Your task to perform on an android device: turn on wifi Image 0: 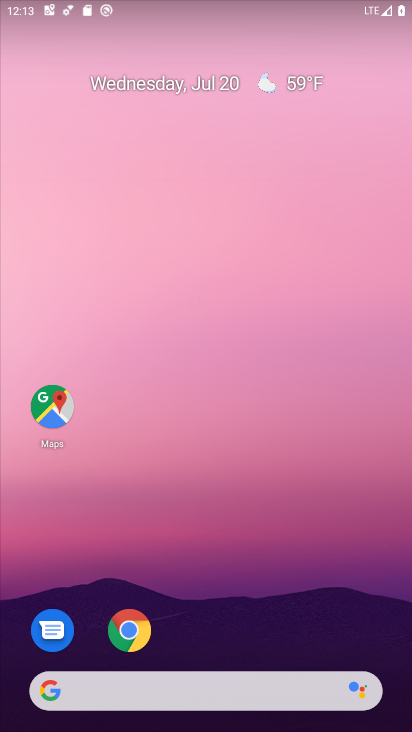
Step 0: drag from (383, 643) to (343, 75)
Your task to perform on an android device: turn on wifi Image 1: 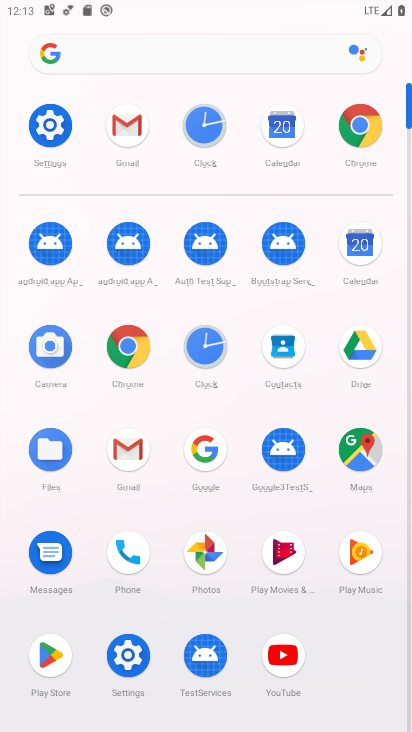
Step 1: click (128, 653)
Your task to perform on an android device: turn on wifi Image 2: 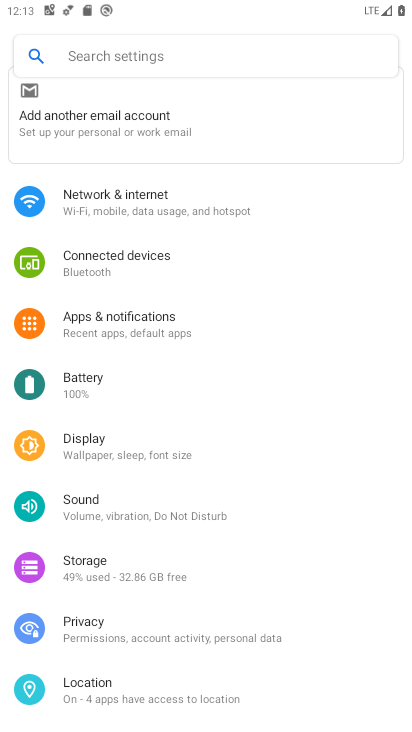
Step 2: click (105, 197)
Your task to perform on an android device: turn on wifi Image 3: 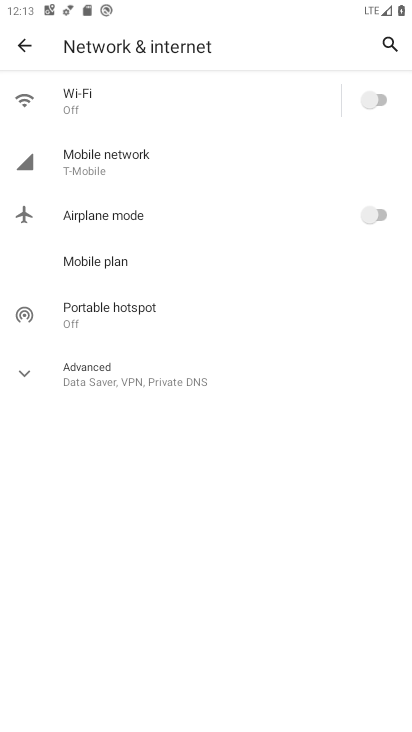
Step 3: click (381, 100)
Your task to perform on an android device: turn on wifi Image 4: 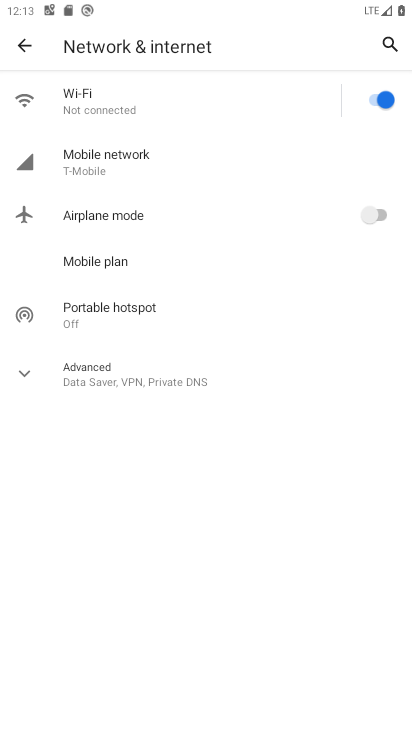
Step 4: task complete